Your task to perform on an android device: make emails show in primary in the gmail app Image 0: 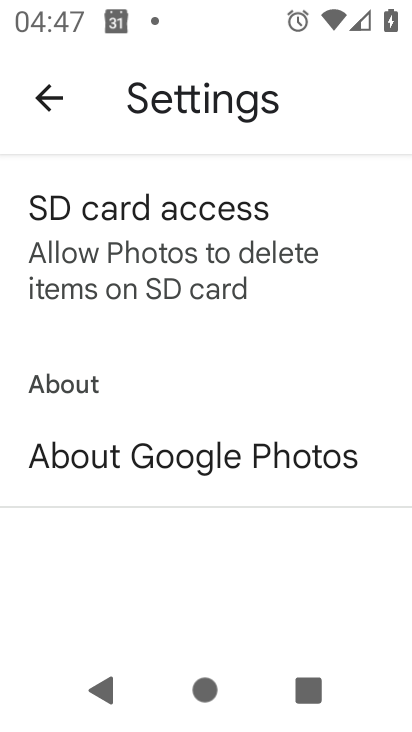
Step 0: press home button
Your task to perform on an android device: make emails show in primary in the gmail app Image 1: 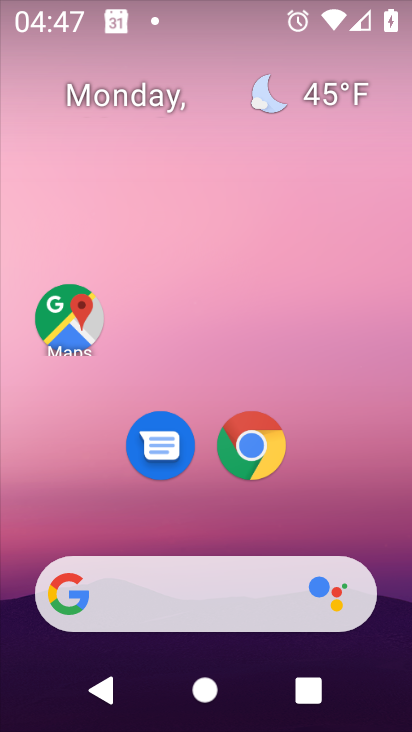
Step 1: drag from (285, 521) to (291, 109)
Your task to perform on an android device: make emails show in primary in the gmail app Image 2: 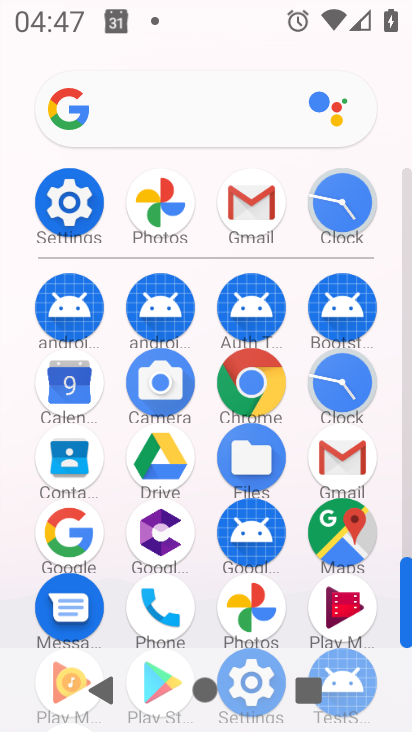
Step 2: click (344, 442)
Your task to perform on an android device: make emails show in primary in the gmail app Image 3: 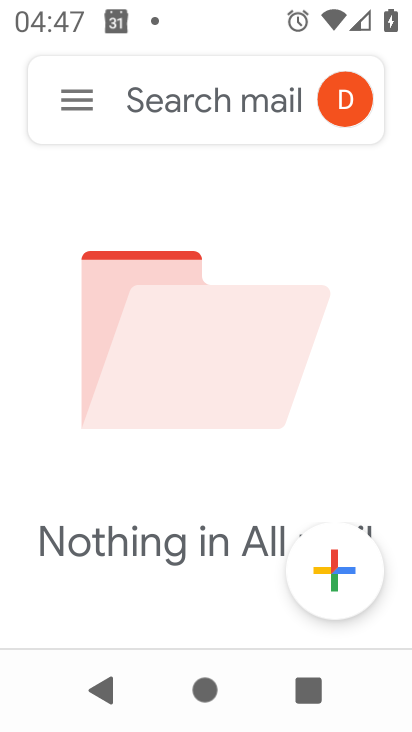
Step 3: click (76, 111)
Your task to perform on an android device: make emails show in primary in the gmail app Image 4: 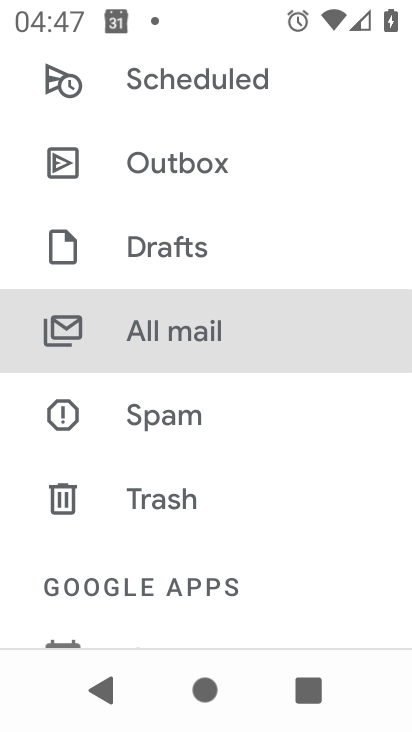
Step 4: drag from (208, 508) to (216, 137)
Your task to perform on an android device: make emails show in primary in the gmail app Image 5: 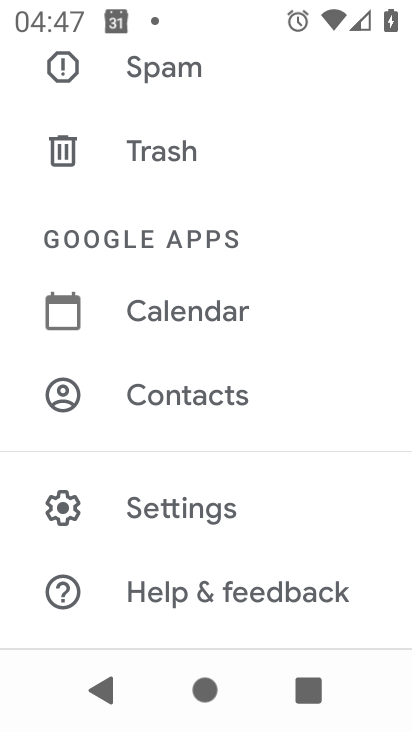
Step 5: click (204, 528)
Your task to perform on an android device: make emails show in primary in the gmail app Image 6: 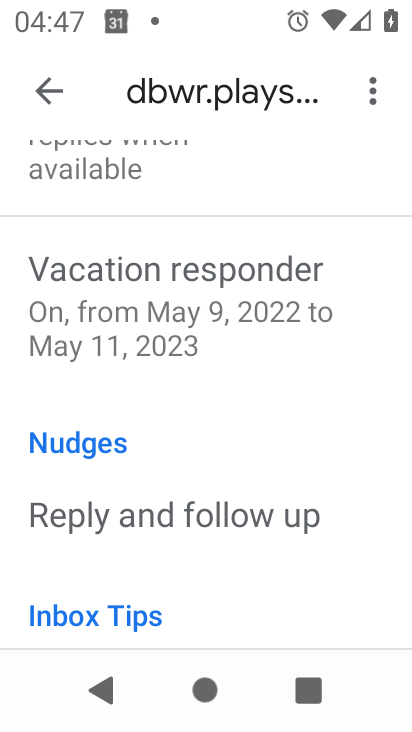
Step 6: drag from (199, 314) to (237, 599)
Your task to perform on an android device: make emails show in primary in the gmail app Image 7: 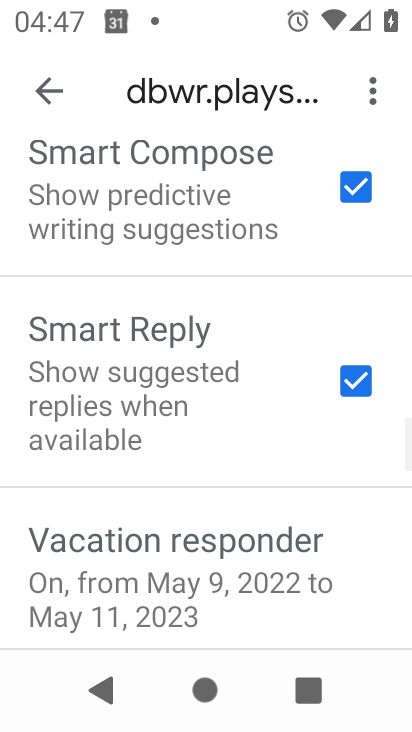
Step 7: drag from (206, 302) to (238, 535)
Your task to perform on an android device: make emails show in primary in the gmail app Image 8: 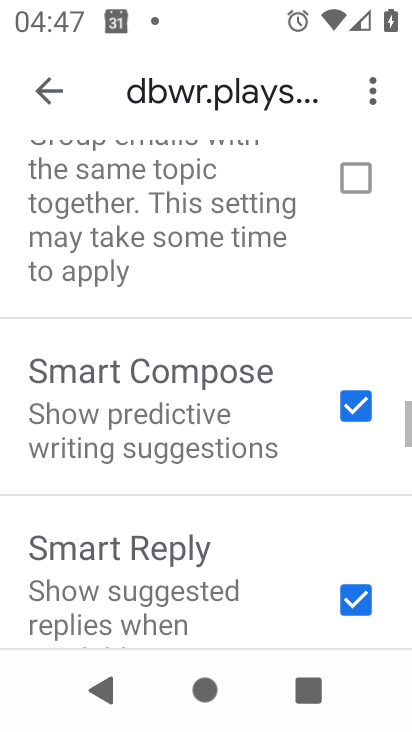
Step 8: drag from (183, 293) to (215, 585)
Your task to perform on an android device: make emails show in primary in the gmail app Image 9: 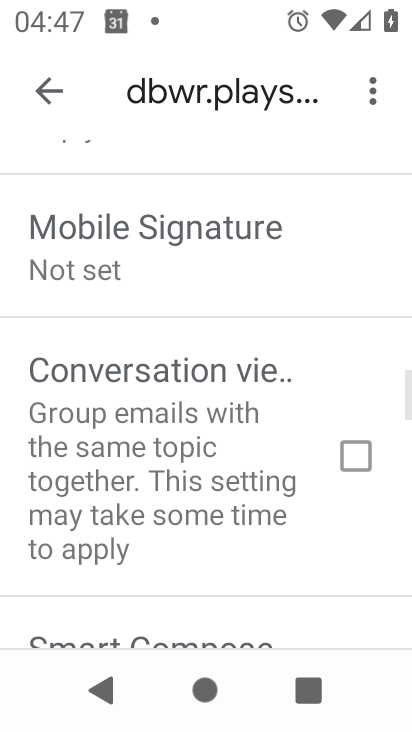
Step 9: drag from (164, 338) to (183, 648)
Your task to perform on an android device: make emails show in primary in the gmail app Image 10: 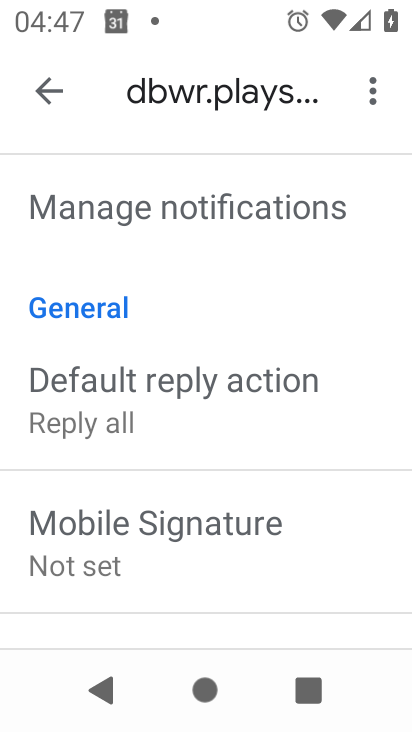
Step 10: drag from (192, 417) to (219, 623)
Your task to perform on an android device: make emails show in primary in the gmail app Image 11: 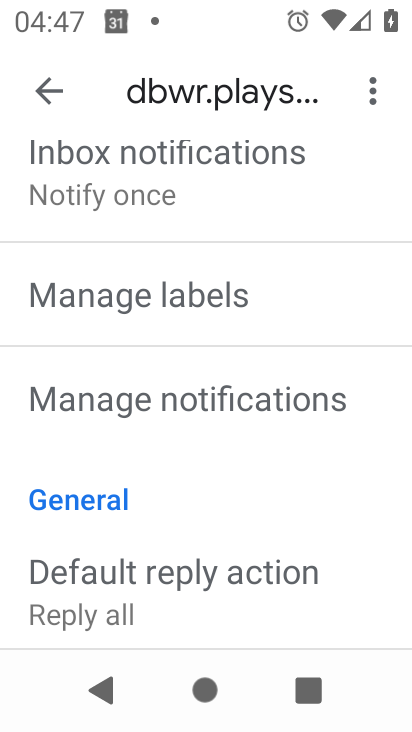
Step 11: drag from (244, 548) to (264, 639)
Your task to perform on an android device: make emails show in primary in the gmail app Image 12: 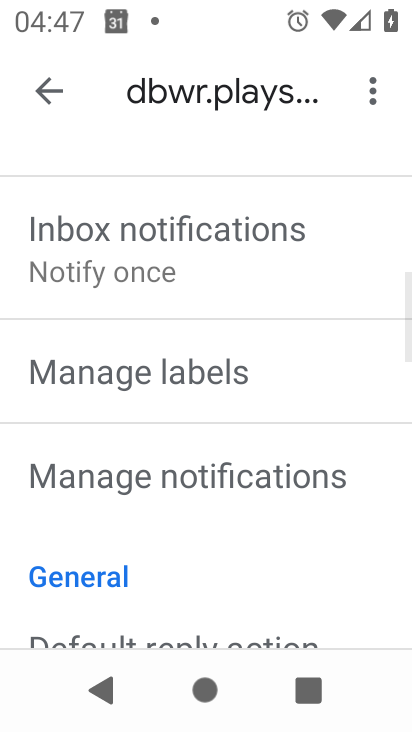
Step 12: drag from (238, 373) to (282, 601)
Your task to perform on an android device: make emails show in primary in the gmail app Image 13: 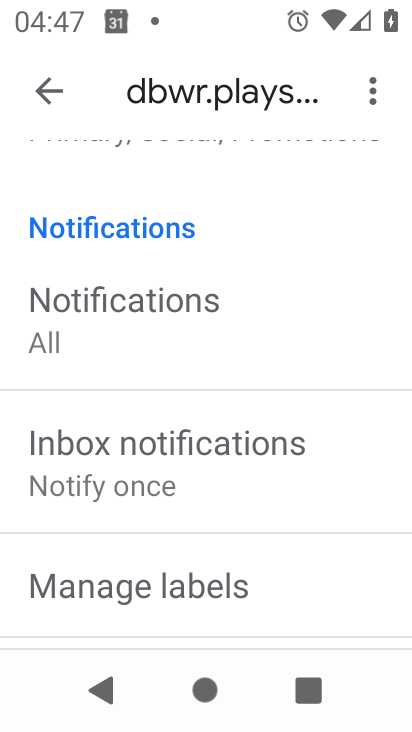
Step 13: drag from (260, 442) to (283, 641)
Your task to perform on an android device: make emails show in primary in the gmail app Image 14: 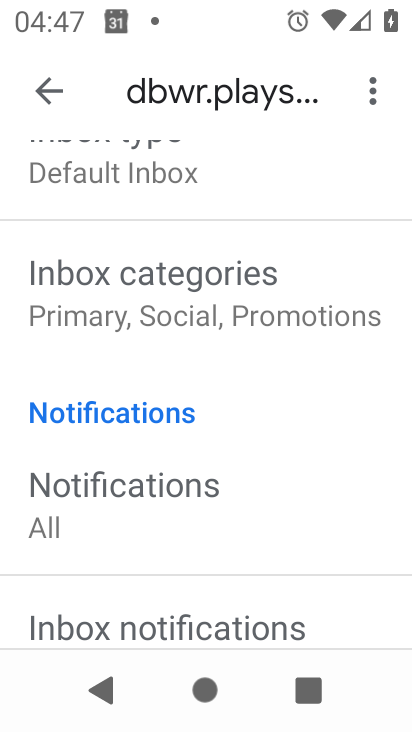
Step 14: drag from (221, 452) to (260, 644)
Your task to perform on an android device: make emails show in primary in the gmail app Image 15: 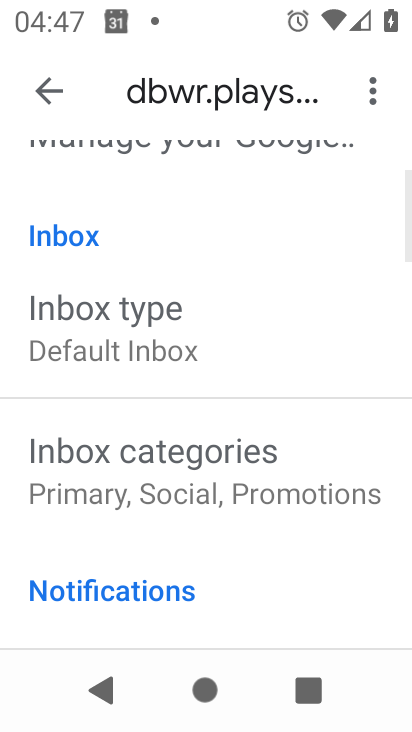
Step 15: drag from (228, 405) to (235, 628)
Your task to perform on an android device: make emails show in primary in the gmail app Image 16: 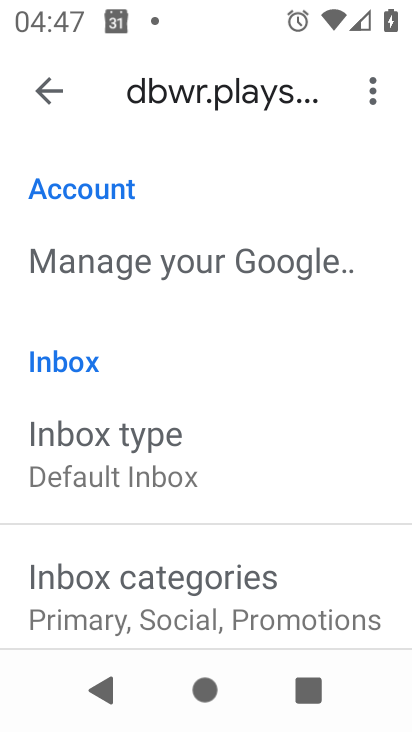
Step 16: click (197, 448)
Your task to perform on an android device: make emails show in primary in the gmail app Image 17: 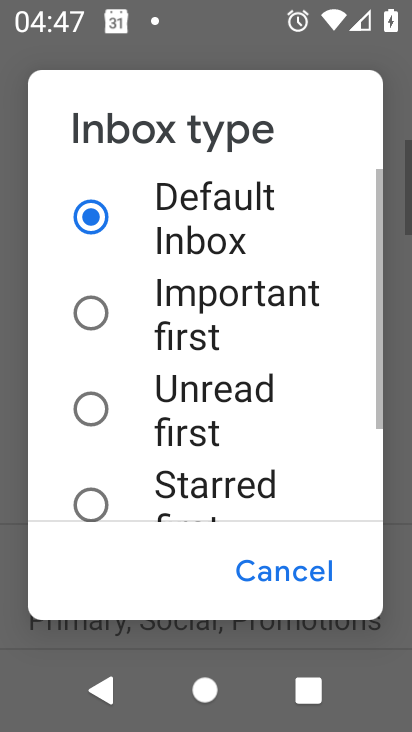
Step 17: click (200, 238)
Your task to perform on an android device: make emails show in primary in the gmail app Image 18: 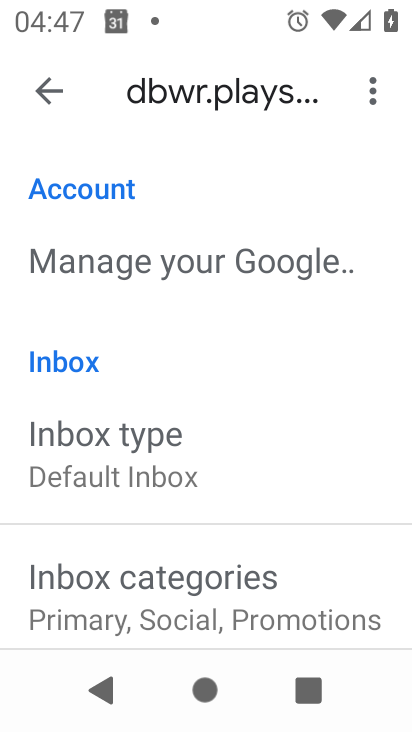
Step 18: task complete